Your task to perform on an android device: Go to Google maps Image 0: 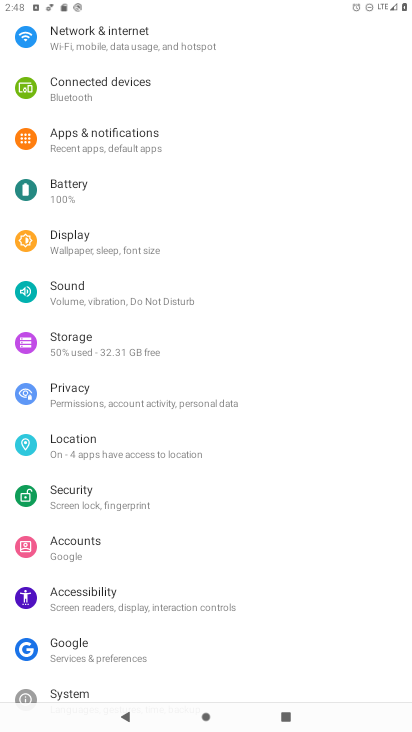
Step 0: press home button
Your task to perform on an android device: Go to Google maps Image 1: 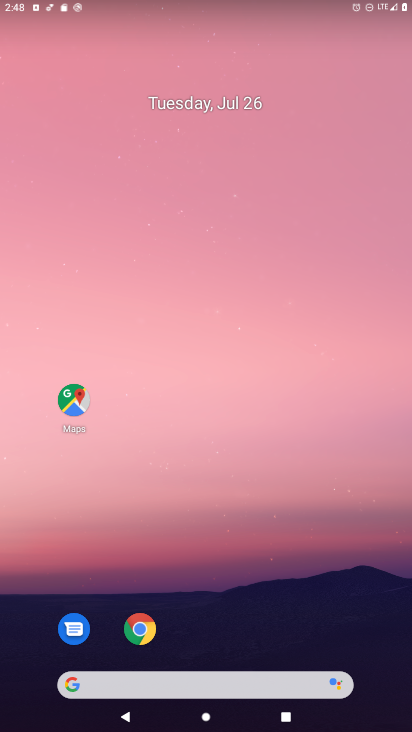
Step 1: click (74, 402)
Your task to perform on an android device: Go to Google maps Image 2: 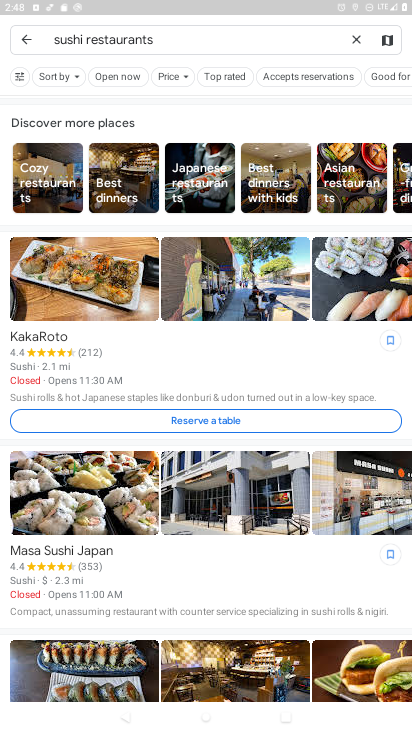
Step 2: click (359, 38)
Your task to perform on an android device: Go to Google maps Image 3: 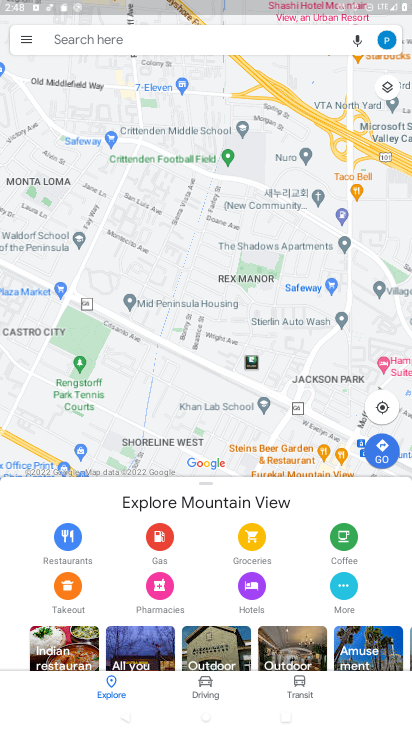
Step 3: task complete